Your task to perform on an android device: Go to calendar. Show me events next week Image 0: 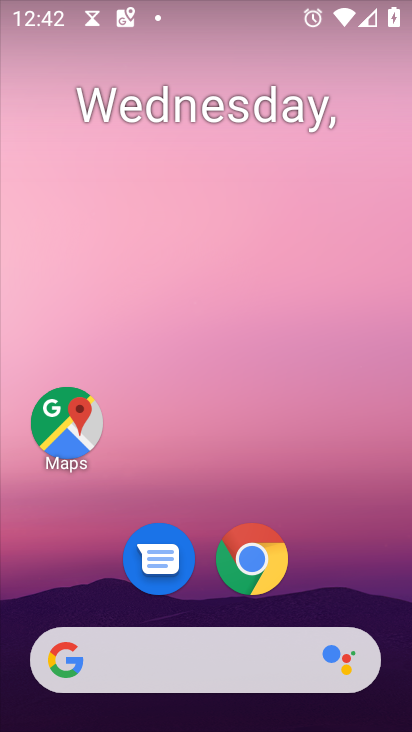
Step 0: drag from (268, 317) to (265, 75)
Your task to perform on an android device: Go to calendar. Show me events next week Image 1: 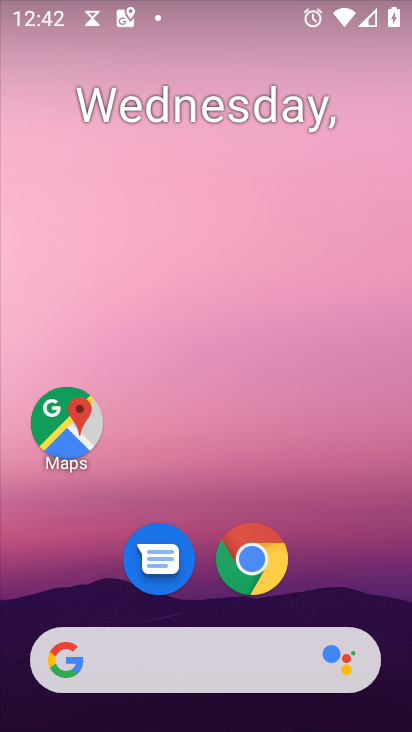
Step 1: drag from (371, 476) to (366, 0)
Your task to perform on an android device: Go to calendar. Show me events next week Image 2: 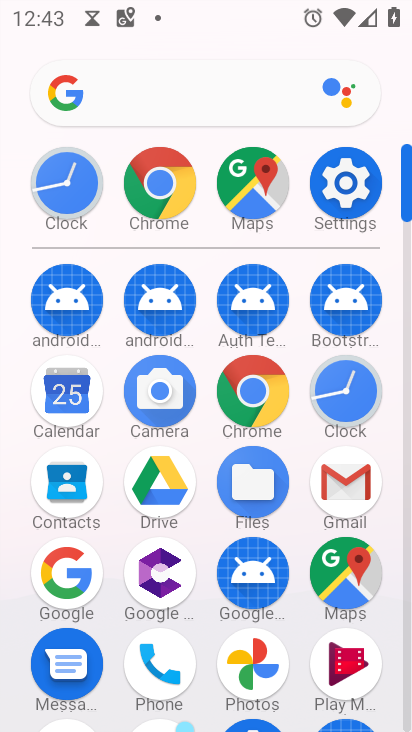
Step 2: click (63, 409)
Your task to perform on an android device: Go to calendar. Show me events next week Image 3: 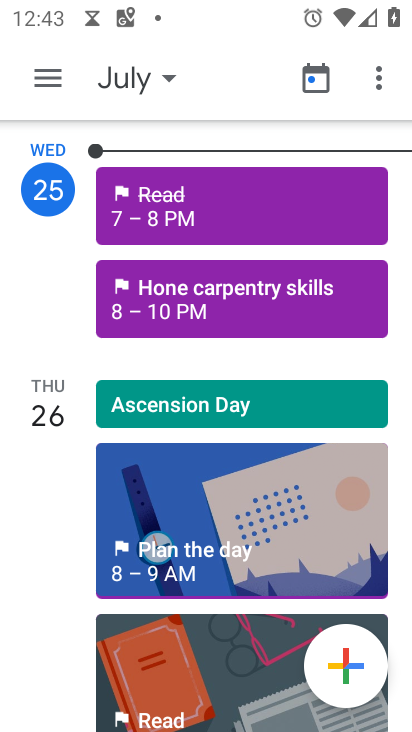
Step 3: click (131, 86)
Your task to perform on an android device: Go to calendar. Show me events next week Image 4: 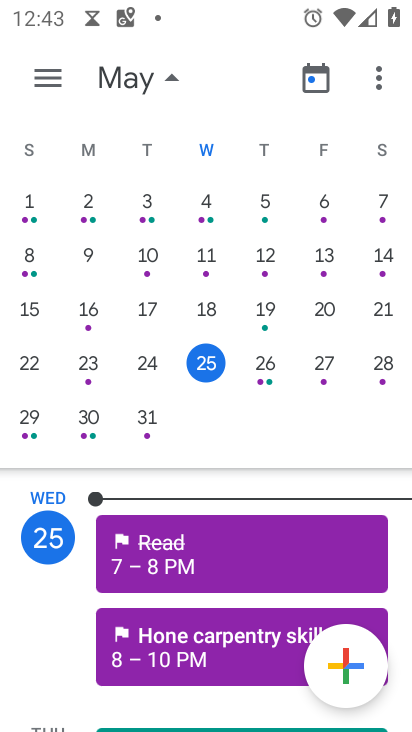
Step 4: task complete